Your task to perform on an android device: Open Wikipedia Image 0: 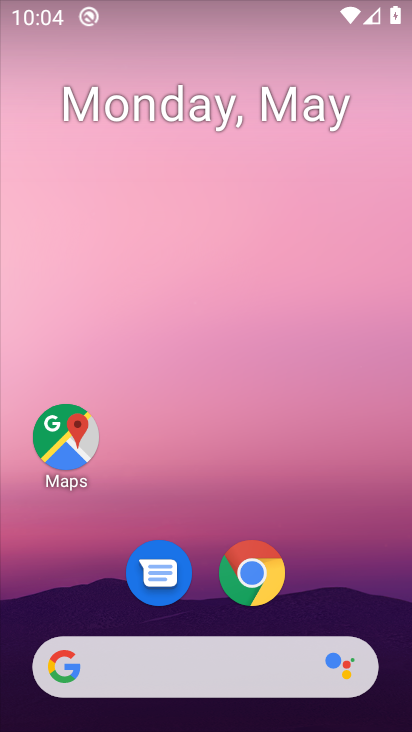
Step 0: click (246, 567)
Your task to perform on an android device: Open Wikipedia Image 1: 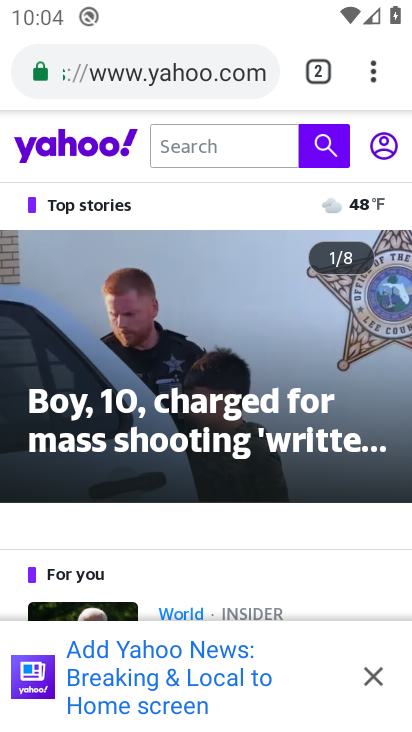
Step 1: click (319, 68)
Your task to perform on an android device: Open Wikipedia Image 2: 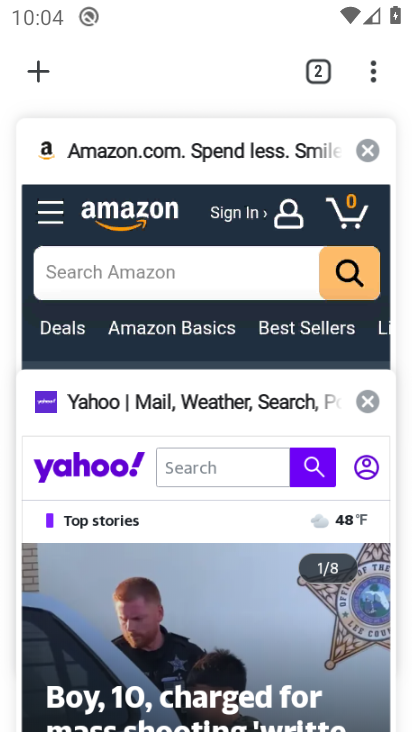
Step 2: click (32, 60)
Your task to perform on an android device: Open Wikipedia Image 3: 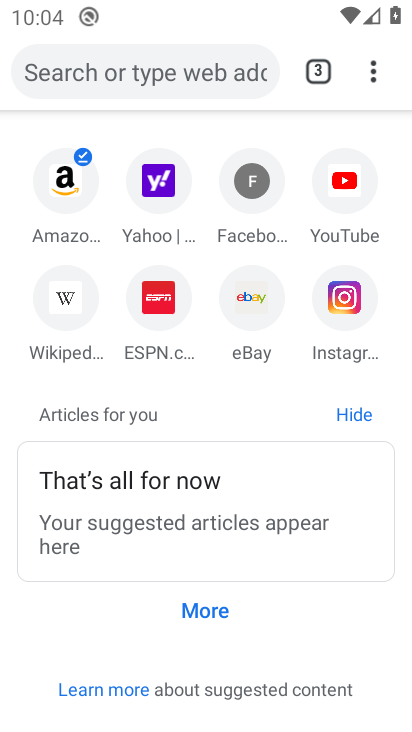
Step 3: click (60, 306)
Your task to perform on an android device: Open Wikipedia Image 4: 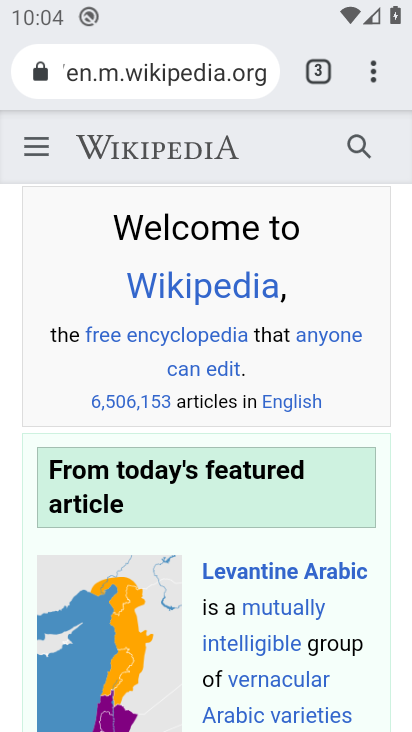
Step 4: task complete